Your task to perform on an android device: What's on the menu at Five Guys? Image 0: 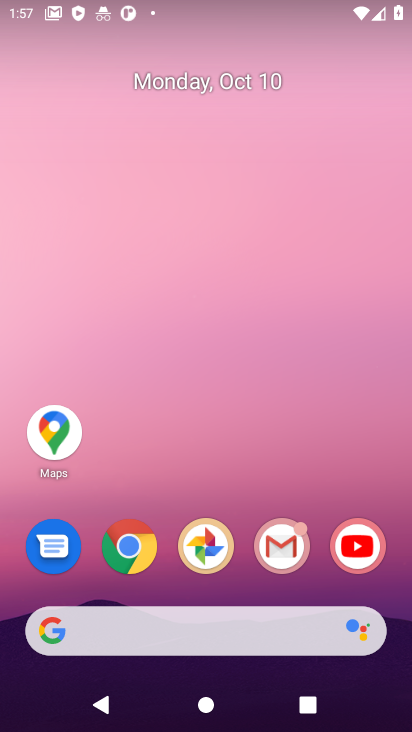
Step 0: click (128, 551)
Your task to perform on an android device: What's on the menu at Five Guys? Image 1: 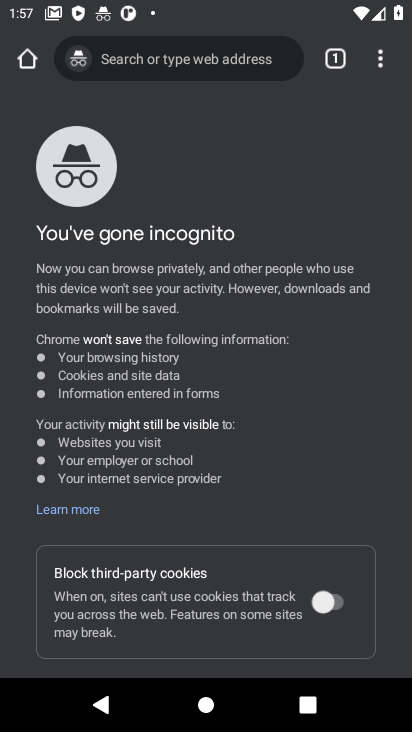
Step 1: click (225, 58)
Your task to perform on an android device: What's on the menu at Five Guys? Image 2: 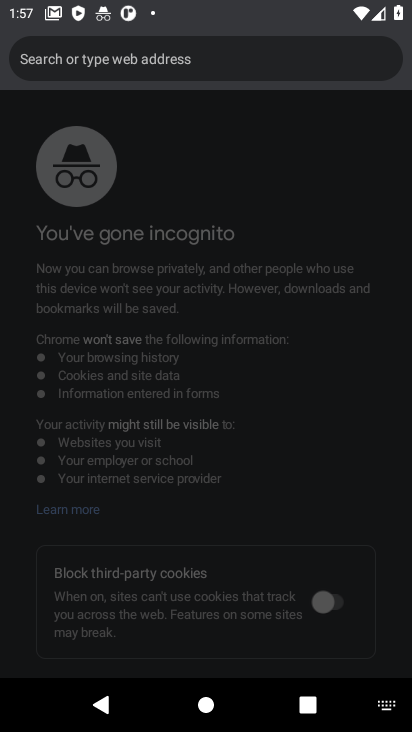
Step 2: type "What's on the menu at Five Guys?"
Your task to perform on an android device: What's on the menu at Five Guys? Image 3: 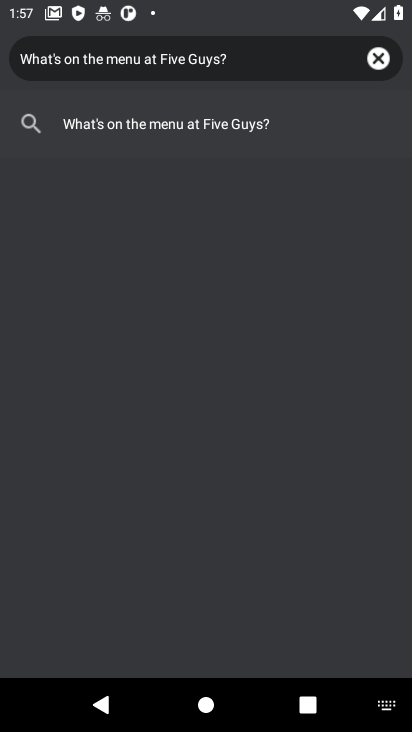
Step 3: click (181, 122)
Your task to perform on an android device: What's on the menu at Five Guys? Image 4: 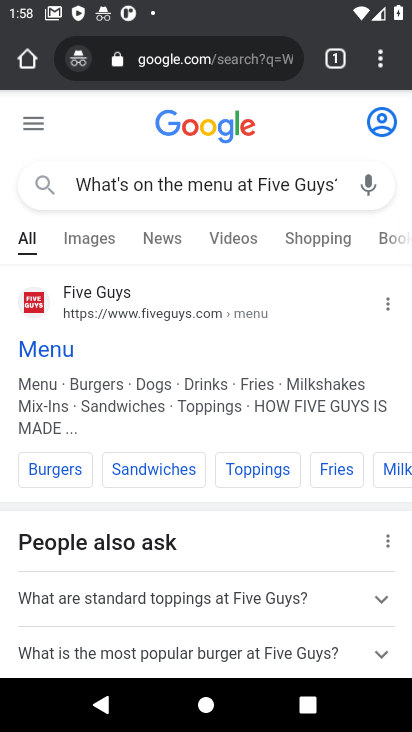
Step 4: click (60, 345)
Your task to perform on an android device: What's on the menu at Five Guys? Image 5: 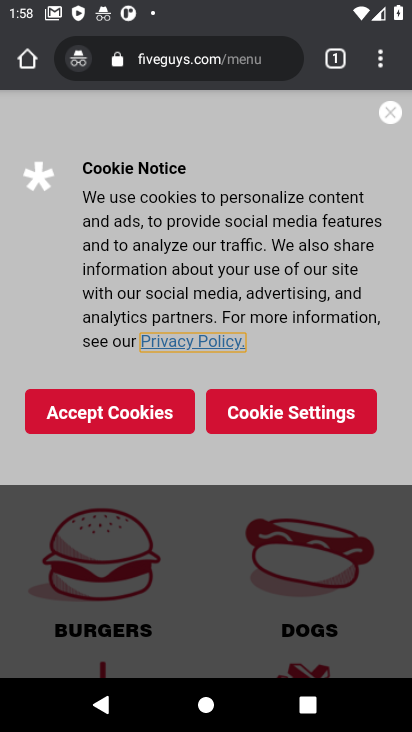
Step 5: click (94, 394)
Your task to perform on an android device: What's on the menu at Five Guys? Image 6: 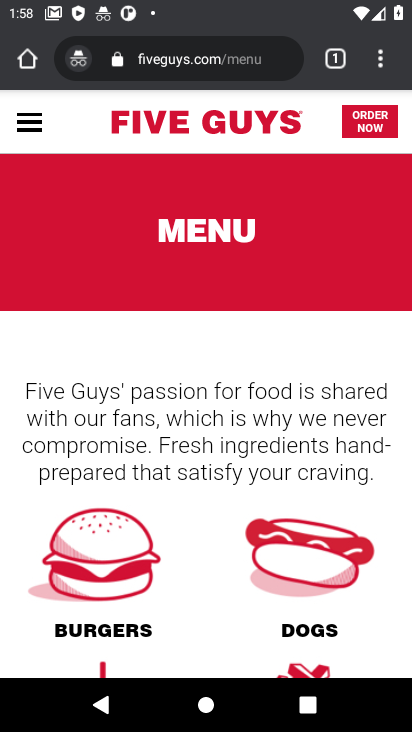
Step 6: task complete